Your task to perform on an android device: Do I have any events this weekend? Image 0: 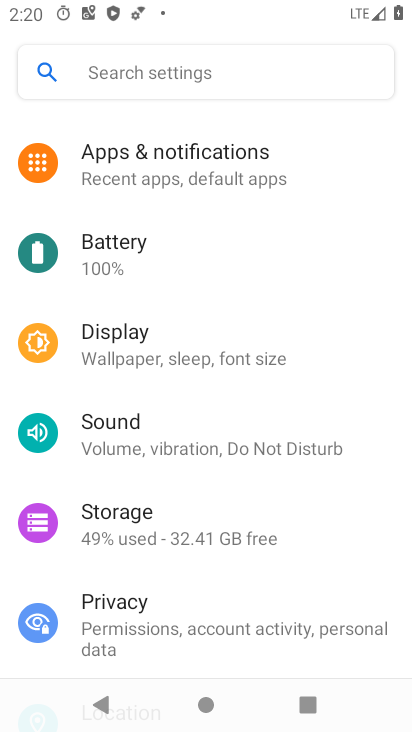
Step 0: press home button
Your task to perform on an android device: Do I have any events this weekend? Image 1: 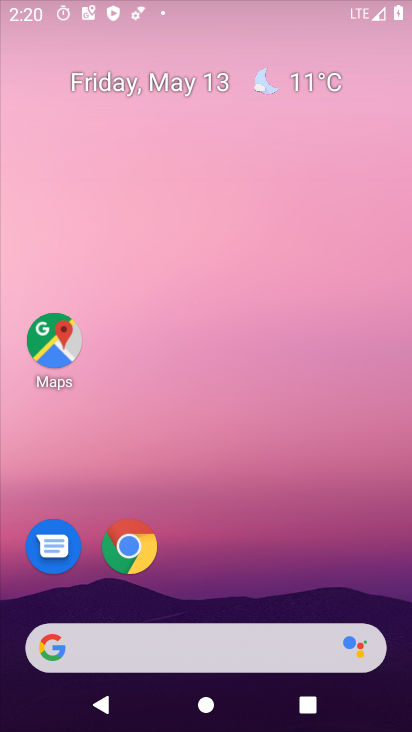
Step 1: drag from (273, 618) to (274, 87)
Your task to perform on an android device: Do I have any events this weekend? Image 2: 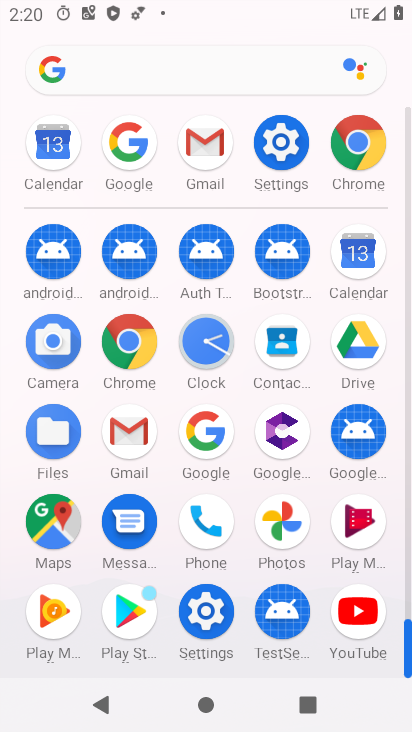
Step 2: click (368, 266)
Your task to perform on an android device: Do I have any events this weekend? Image 3: 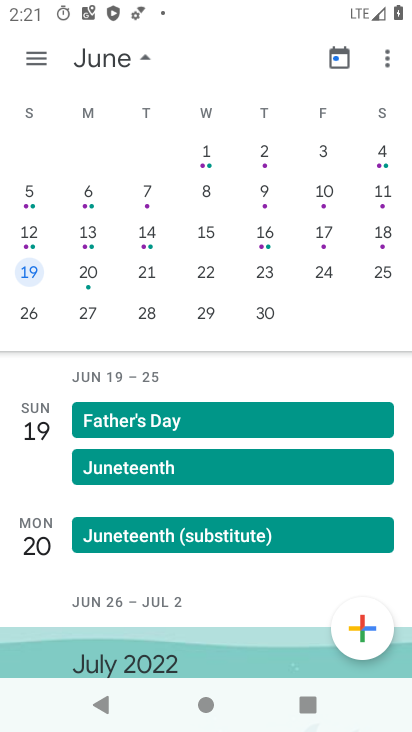
Step 3: task complete